Your task to perform on an android device: clear all cookies in the chrome app Image 0: 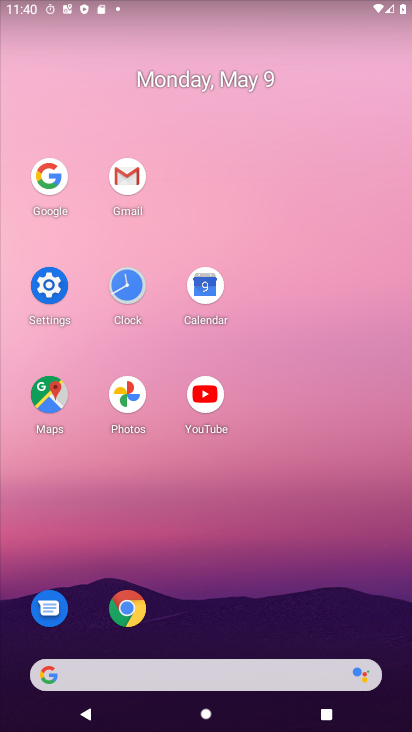
Step 0: click (129, 616)
Your task to perform on an android device: clear all cookies in the chrome app Image 1: 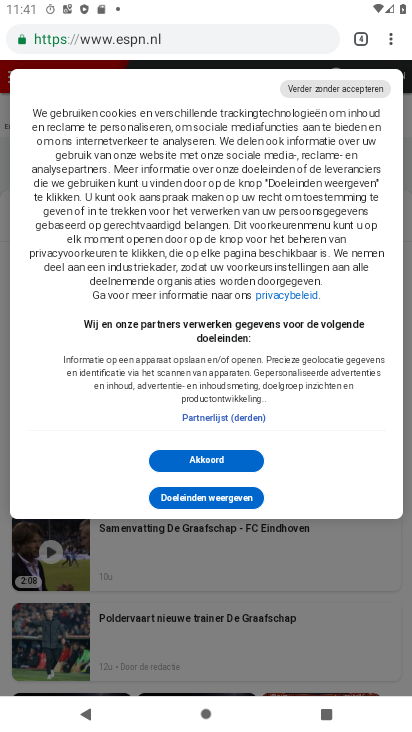
Step 1: click (390, 33)
Your task to perform on an android device: clear all cookies in the chrome app Image 2: 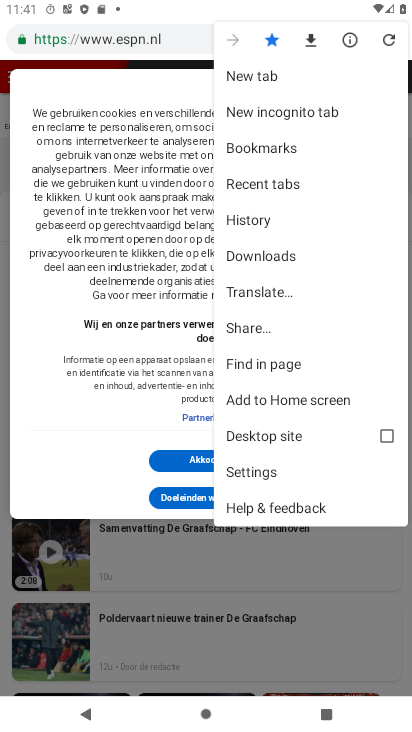
Step 2: click (316, 128)
Your task to perform on an android device: clear all cookies in the chrome app Image 3: 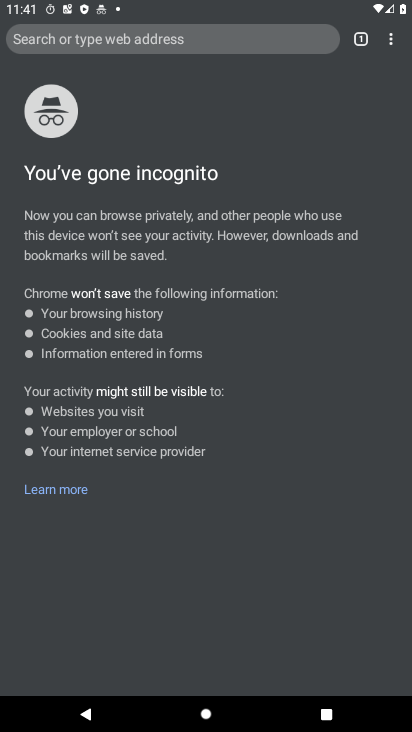
Step 3: press home button
Your task to perform on an android device: clear all cookies in the chrome app Image 4: 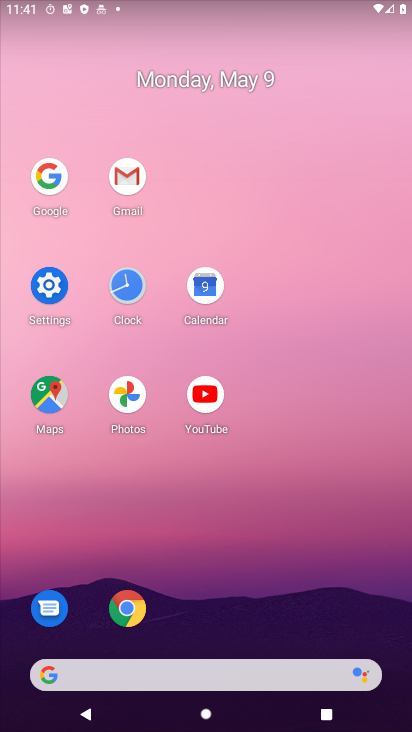
Step 4: click (134, 619)
Your task to perform on an android device: clear all cookies in the chrome app Image 5: 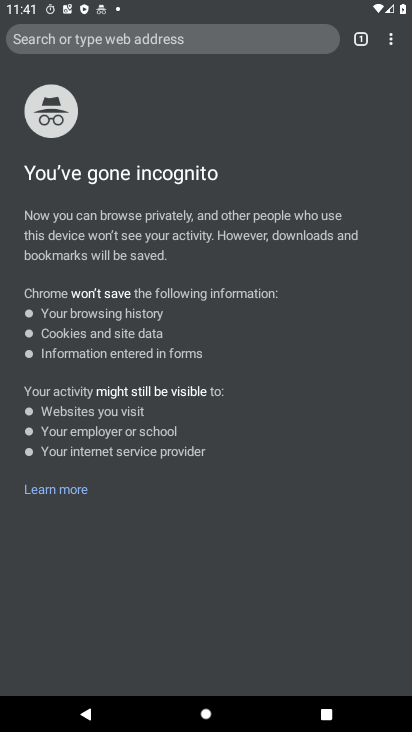
Step 5: click (398, 42)
Your task to perform on an android device: clear all cookies in the chrome app Image 6: 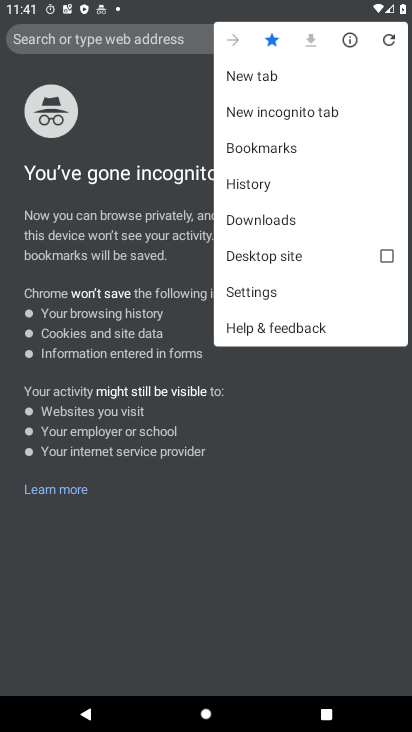
Step 6: click (277, 293)
Your task to perform on an android device: clear all cookies in the chrome app Image 7: 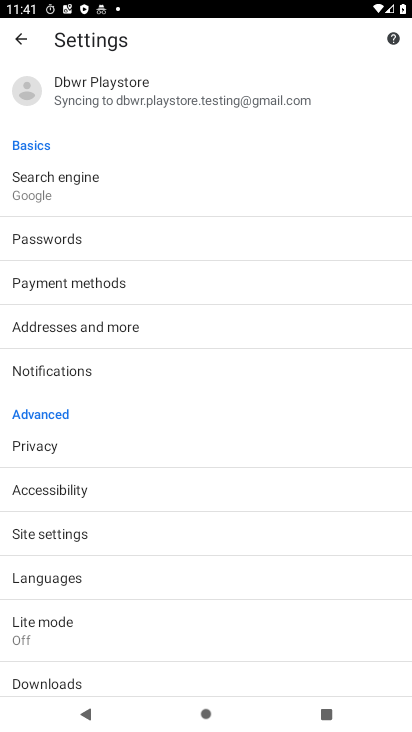
Step 7: click (102, 439)
Your task to perform on an android device: clear all cookies in the chrome app Image 8: 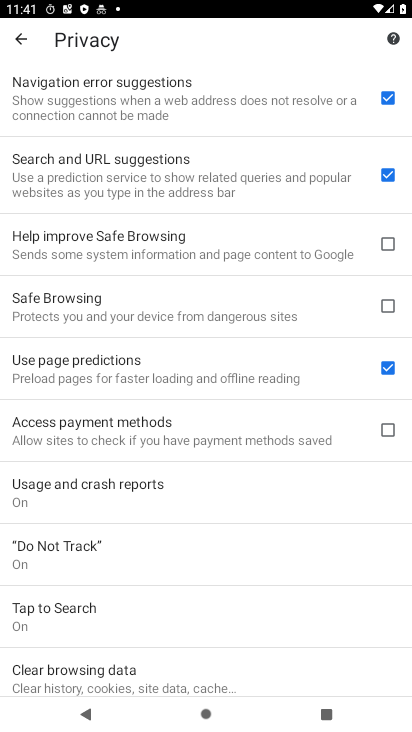
Step 8: drag from (289, 596) to (281, 212)
Your task to perform on an android device: clear all cookies in the chrome app Image 9: 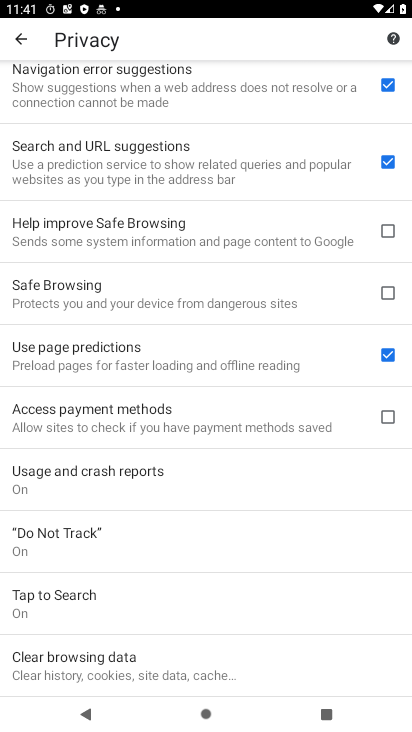
Step 9: click (171, 655)
Your task to perform on an android device: clear all cookies in the chrome app Image 10: 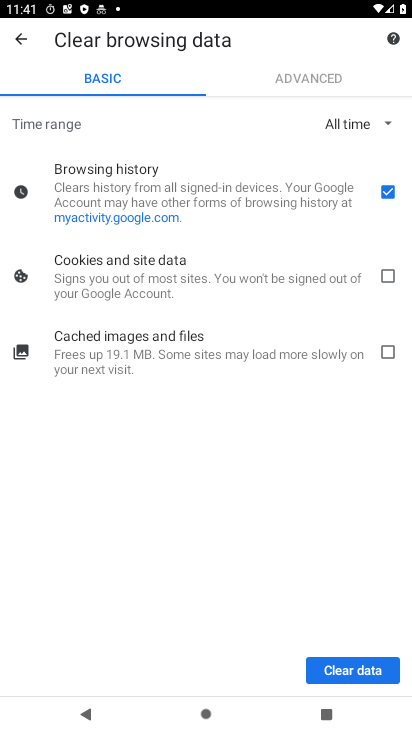
Step 10: click (389, 280)
Your task to perform on an android device: clear all cookies in the chrome app Image 11: 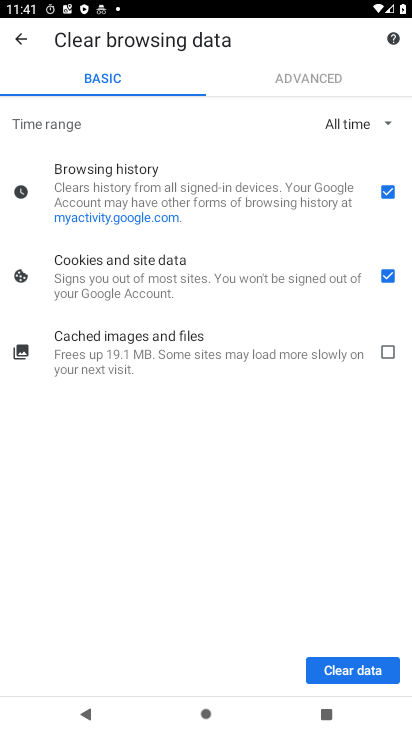
Step 11: click (341, 673)
Your task to perform on an android device: clear all cookies in the chrome app Image 12: 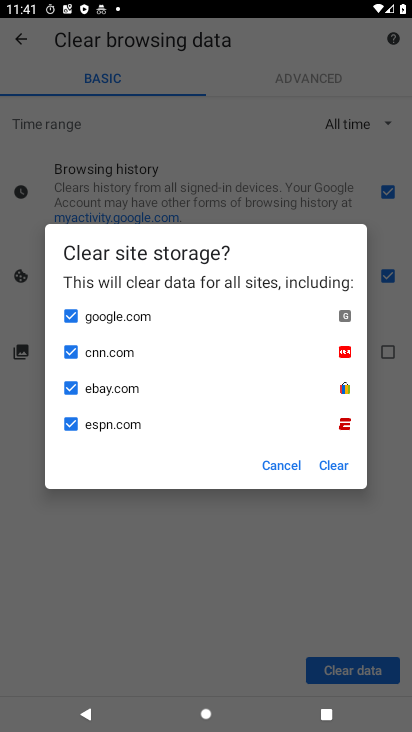
Step 12: click (330, 471)
Your task to perform on an android device: clear all cookies in the chrome app Image 13: 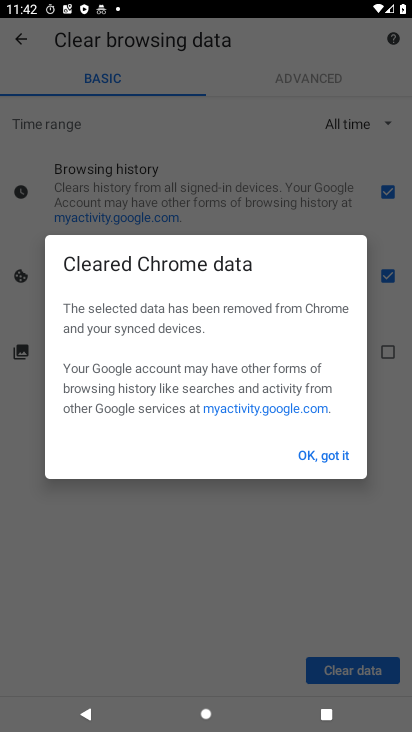
Step 13: click (328, 461)
Your task to perform on an android device: clear all cookies in the chrome app Image 14: 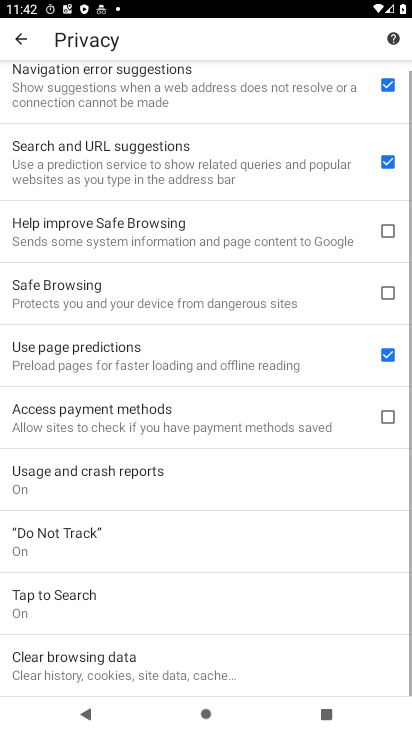
Step 14: task complete